Your task to perform on an android device: Check the weather Image 0: 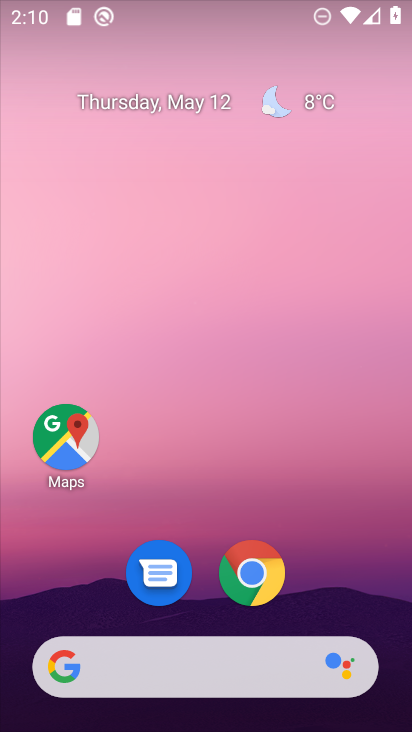
Step 0: drag from (356, 579) to (166, 186)
Your task to perform on an android device: Check the weather Image 1: 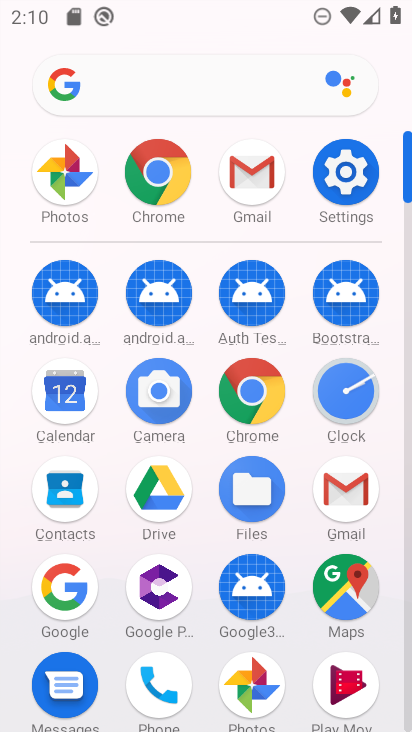
Step 1: press back button
Your task to perform on an android device: Check the weather Image 2: 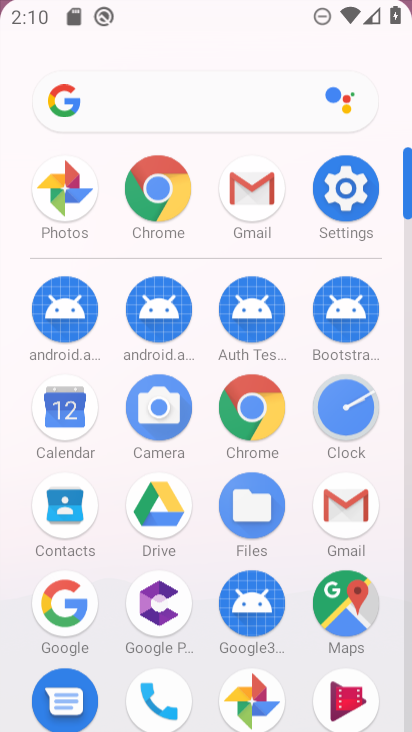
Step 2: press back button
Your task to perform on an android device: Check the weather Image 3: 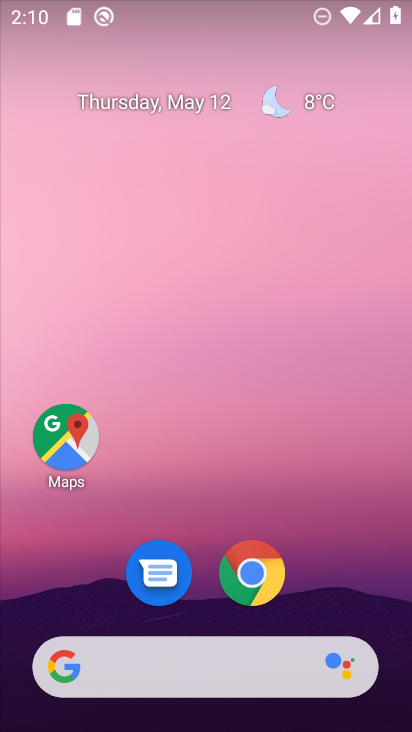
Step 3: press back button
Your task to perform on an android device: Check the weather Image 4: 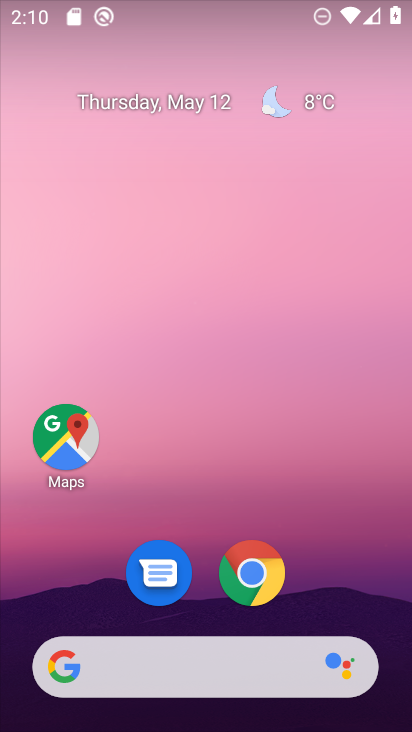
Step 4: drag from (2, 193) to (397, 494)
Your task to perform on an android device: Check the weather Image 5: 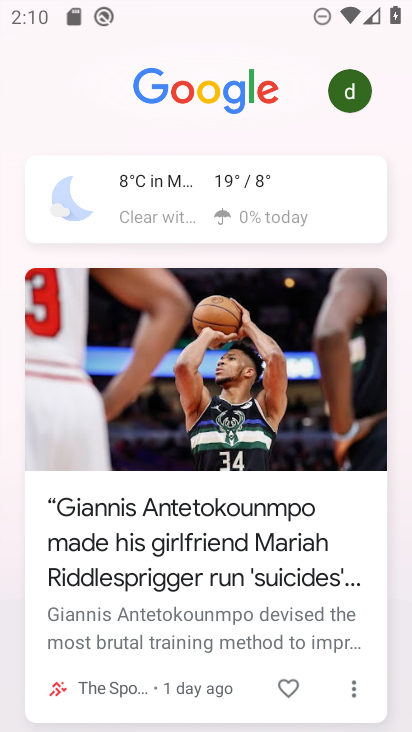
Step 5: click (147, 186)
Your task to perform on an android device: Check the weather Image 6: 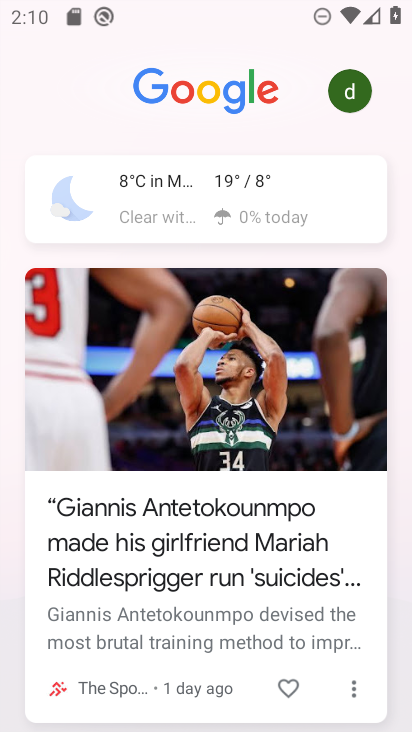
Step 6: click (154, 190)
Your task to perform on an android device: Check the weather Image 7: 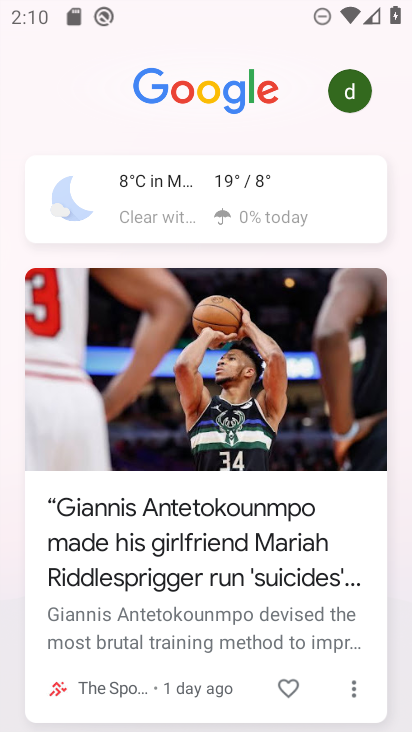
Step 7: click (156, 191)
Your task to perform on an android device: Check the weather Image 8: 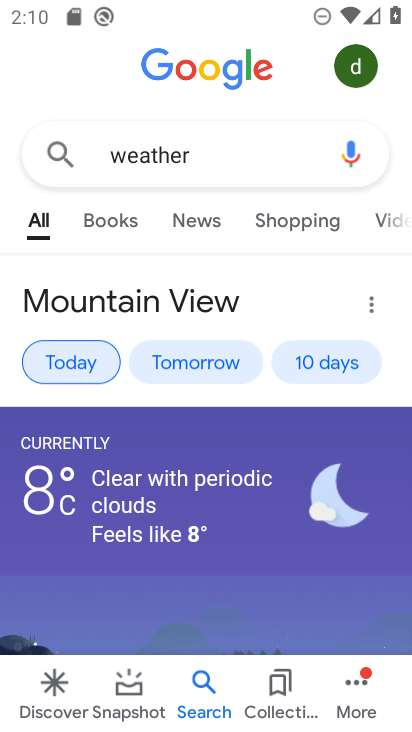
Step 8: click (186, 374)
Your task to perform on an android device: Check the weather Image 9: 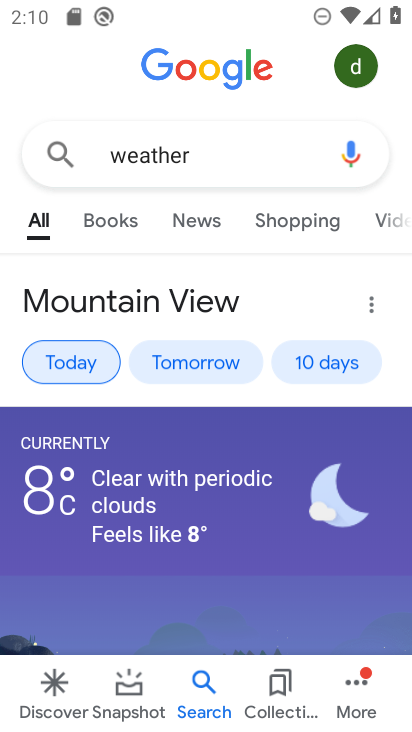
Step 9: click (185, 371)
Your task to perform on an android device: Check the weather Image 10: 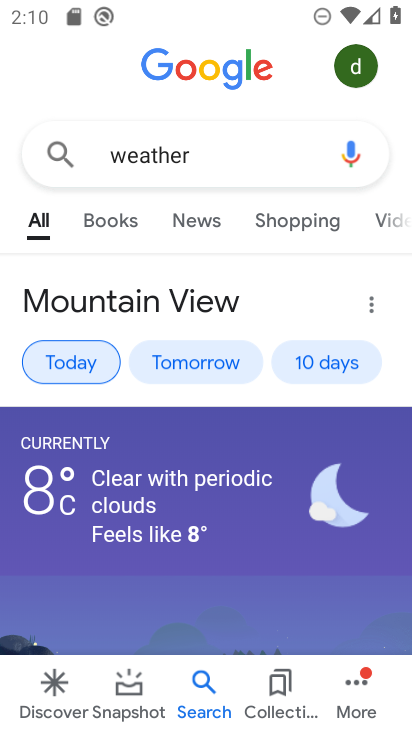
Step 10: click (185, 365)
Your task to perform on an android device: Check the weather Image 11: 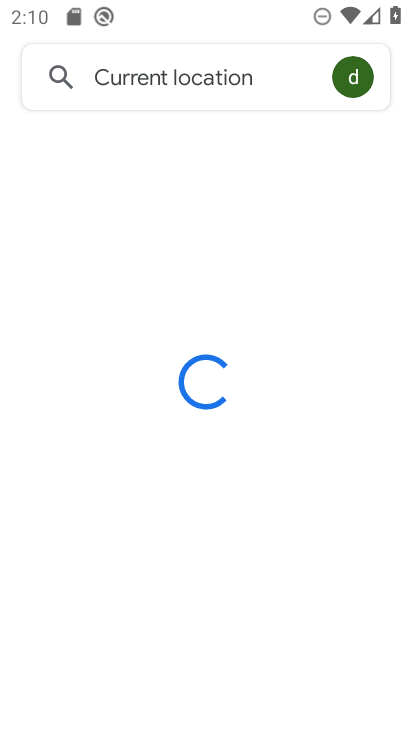
Step 11: click (192, 357)
Your task to perform on an android device: Check the weather Image 12: 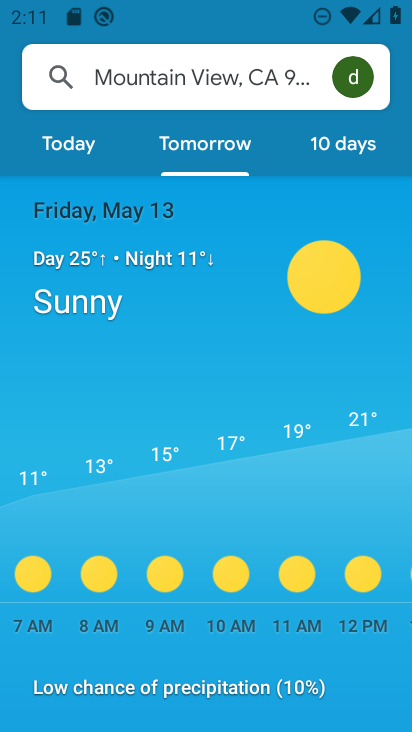
Step 12: drag from (183, 388) to (76, 237)
Your task to perform on an android device: Check the weather Image 13: 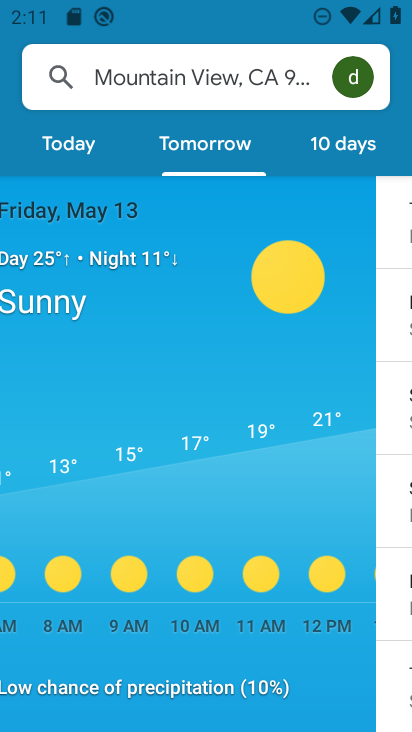
Step 13: click (68, 149)
Your task to perform on an android device: Check the weather Image 14: 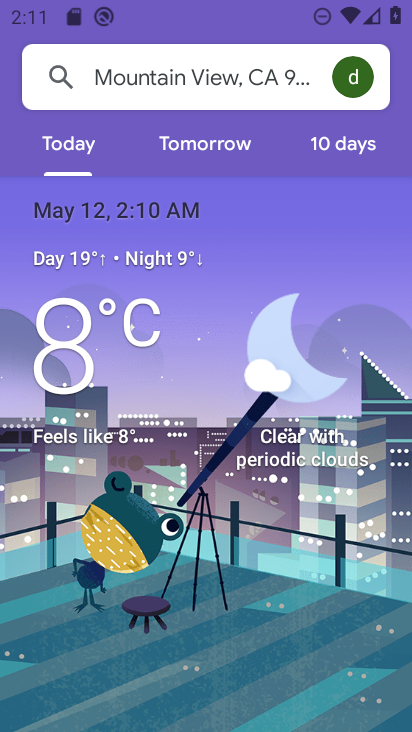
Step 14: click (72, 142)
Your task to perform on an android device: Check the weather Image 15: 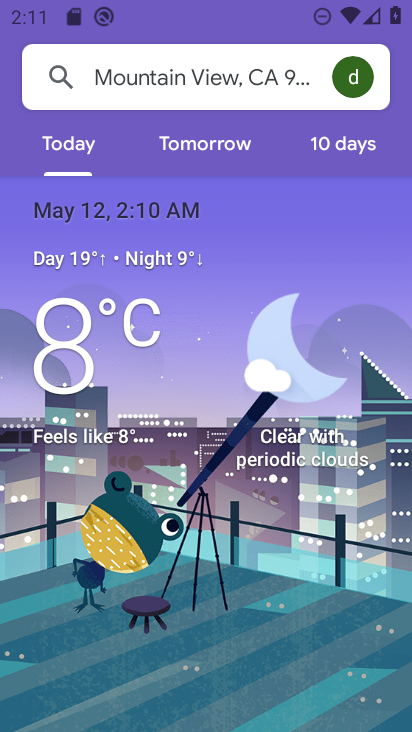
Step 15: click (74, 141)
Your task to perform on an android device: Check the weather Image 16: 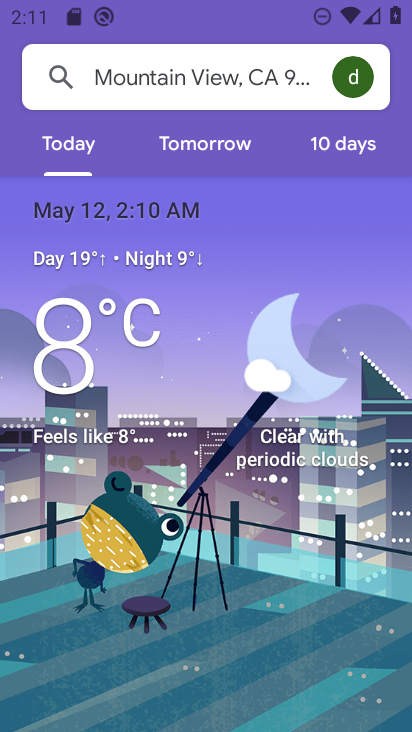
Step 16: click (353, 142)
Your task to perform on an android device: Check the weather Image 17: 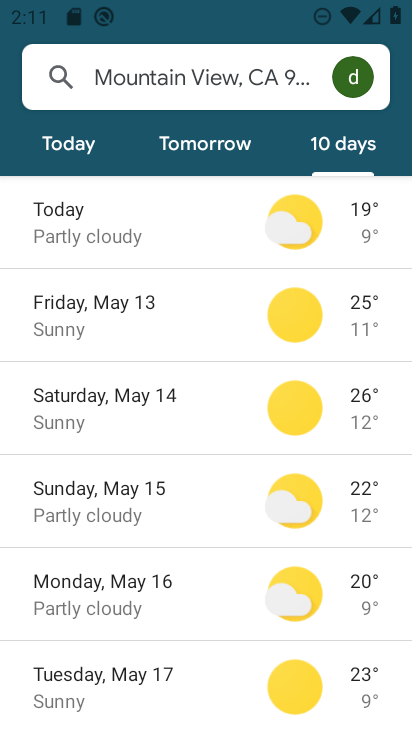
Step 17: drag from (228, 451) to (152, 235)
Your task to perform on an android device: Check the weather Image 18: 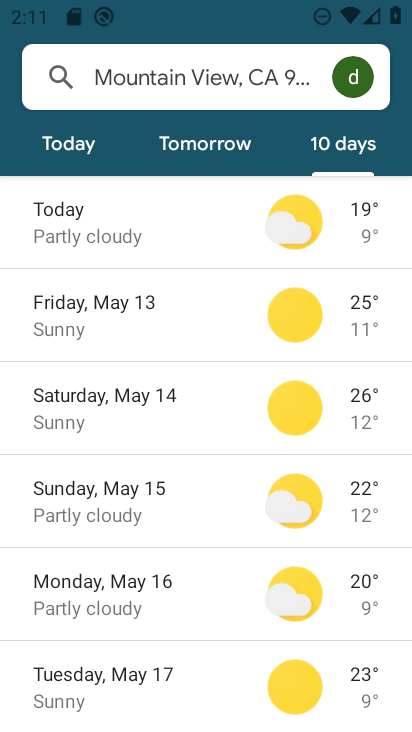
Step 18: click (146, 155)
Your task to perform on an android device: Check the weather Image 19: 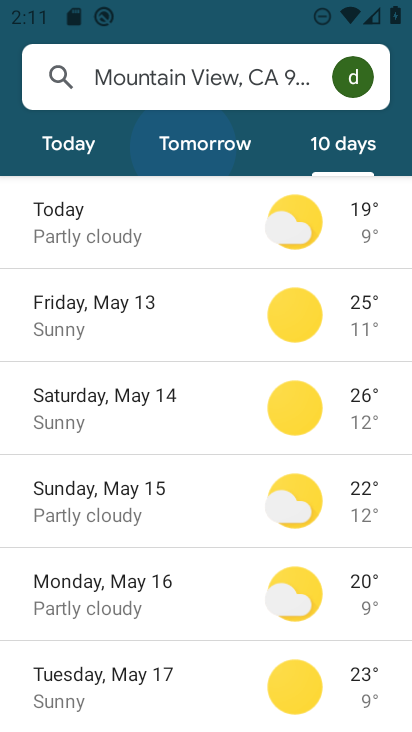
Step 19: click (165, 267)
Your task to perform on an android device: Check the weather Image 20: 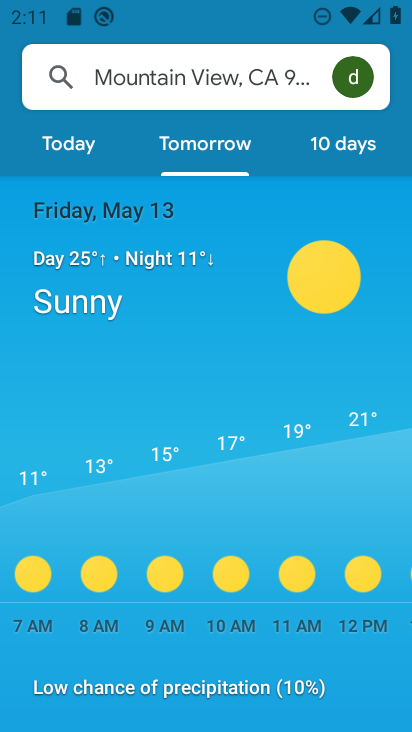
Step 20: click (210, 146)
Your task to perform on an android device: Check the weather Image 21: 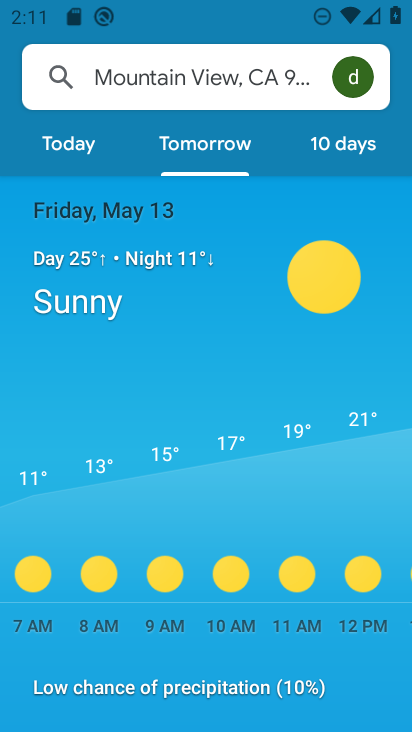
Step 21: task complete